Your task to perform on an android device: Go to Wikipedia Image 0: 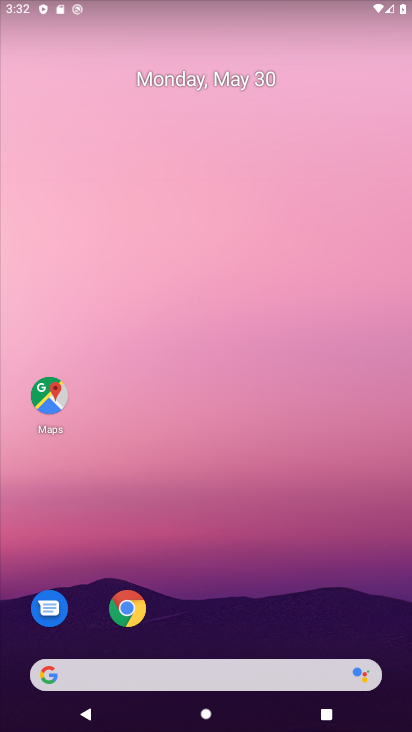
Step 0: drag from (195, 631) to (237, 111)
Your task to perform on an android device: Go to Wikipedia Image 1: 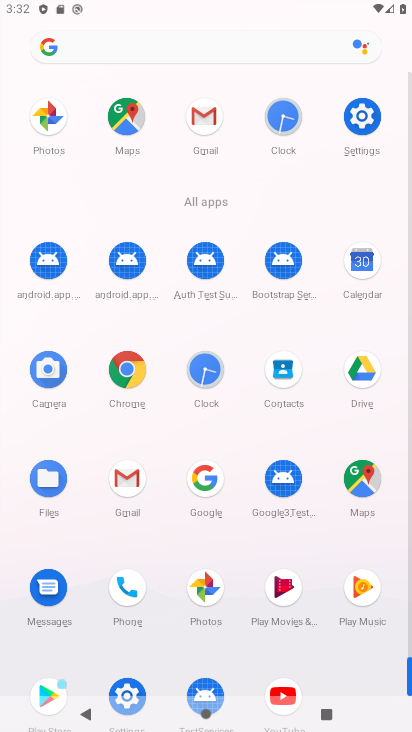
Step 1: click (112, 376)
Your task to perform on an android device: Go to Wikipedia Image 2: 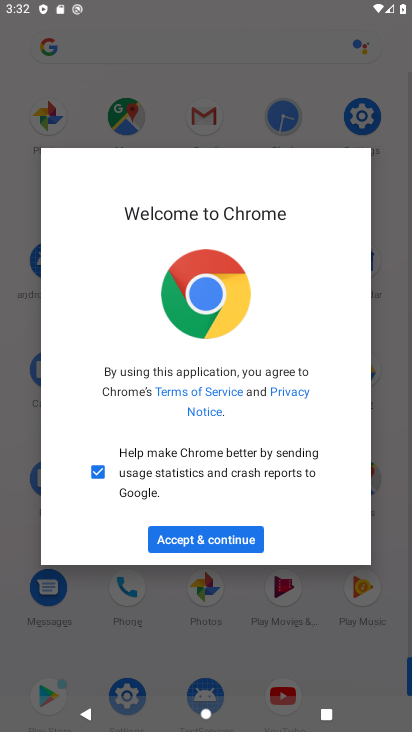
Step 2: click (262, 539)
Your task to perform on an android device: Go to Wikipedia Image 3: 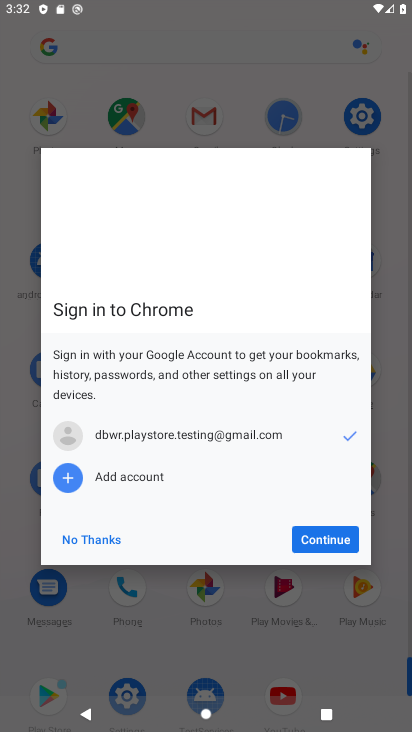
Step 3: click (314, 533)
Your task to perform on an android device: Go to Wikipedia Image 4: 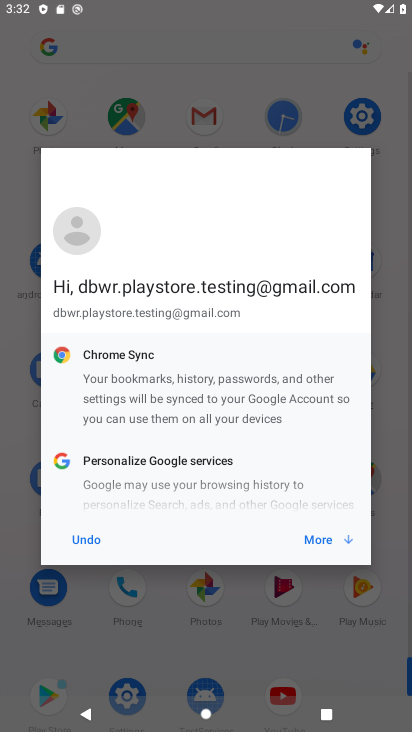
Step 4: click (337, 548)
Your task to perform on an android device: Go to Wikipedia Image 5: 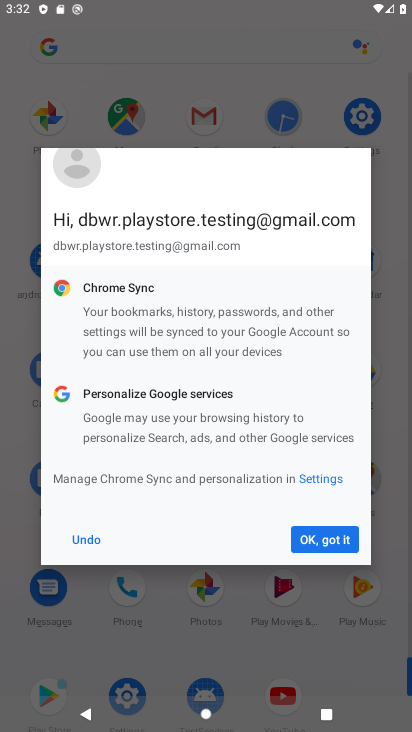
Step 5: click (337, 548)
Your task to perform on an android device: Go to Wikipedia Image 6: 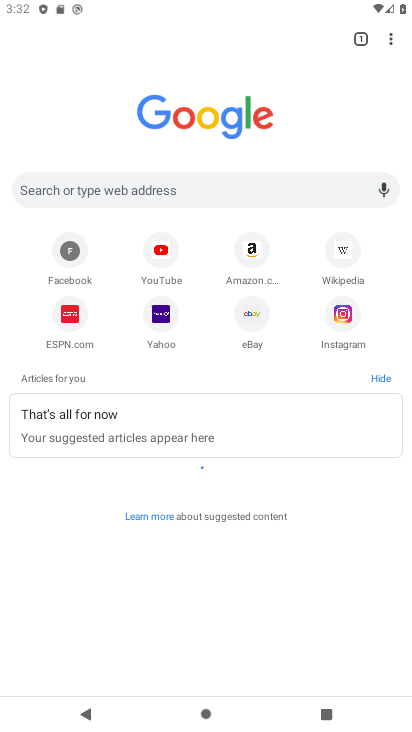
Step 6: click (346, 259)
Your task to perform on an android device: Go to Wikipedia Image 7: 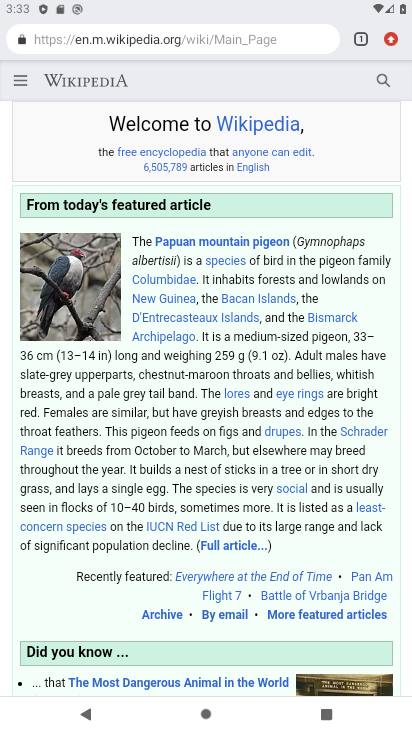
Step 7: task complete